Your task to perform on an android device: Open Google Chrome and open the bookmarks view Image 0: 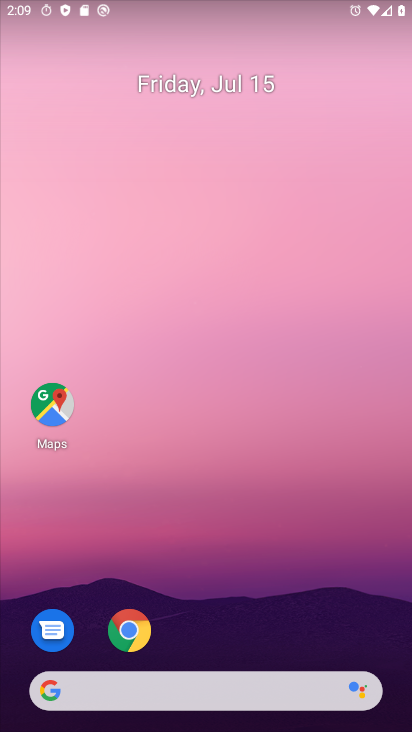
Step 0: click (129, 628)
Your task to perform on an android device: Open Google Chrome and open the bookmarks view Image 1: 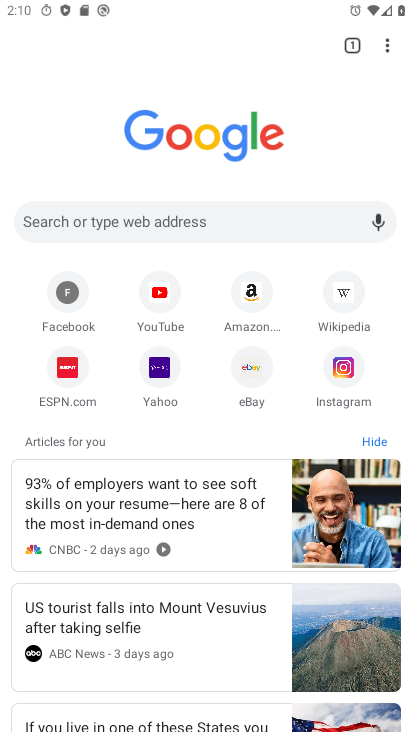
Step 1: click (386, 32)
Your task to perform on an android device: Open Google Chrome and open the bookmarks view Image 2: 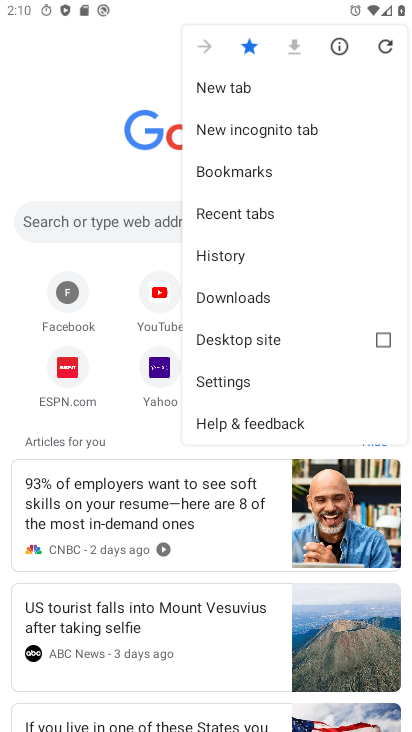
Step 2: click (310, 166)
Your task to perform on an android device: Open Google Chrome and open the bookmarks view Image 3: 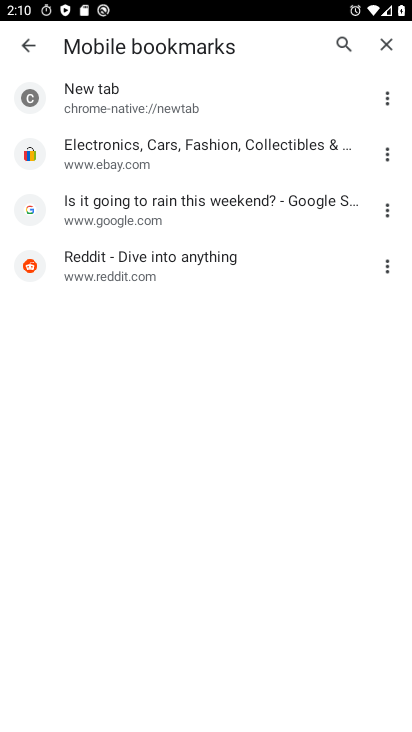
Step 3: task complete